Your task to perform on an android device: add a contact in the contacts app Image 0: 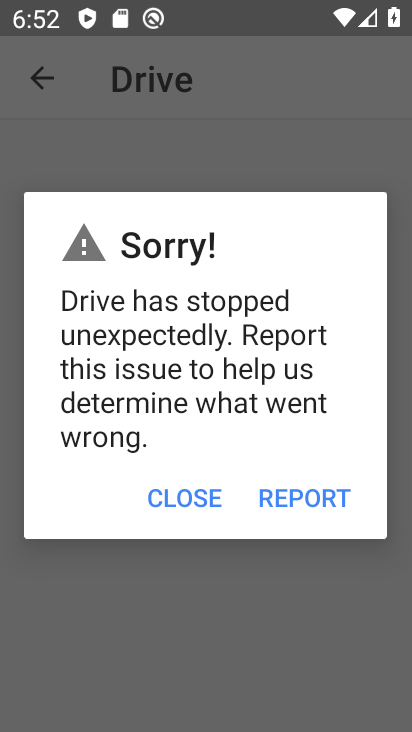
Step 0: press back button
Your task to perform on an android device: add a contact in the contacts app Image 1: 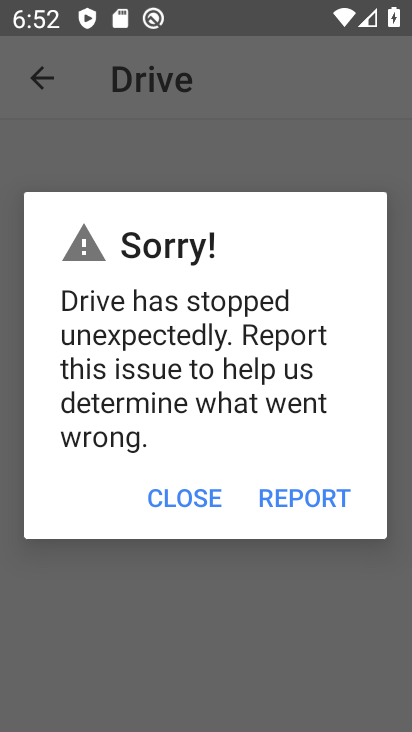
Step 1: click (190, 485)
Your task to perform on an android device: add a contact in the contacts app Image 2: 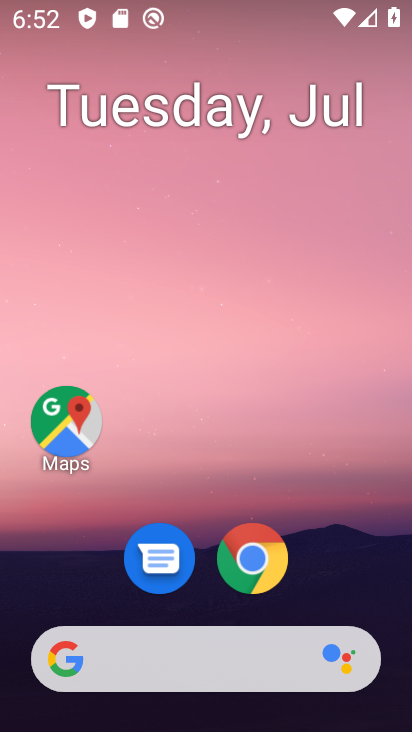
Step 2: drag from (129, 562) to (244, 2)
Your task to perform on an android device: add a contact in the contacts app Image 3: 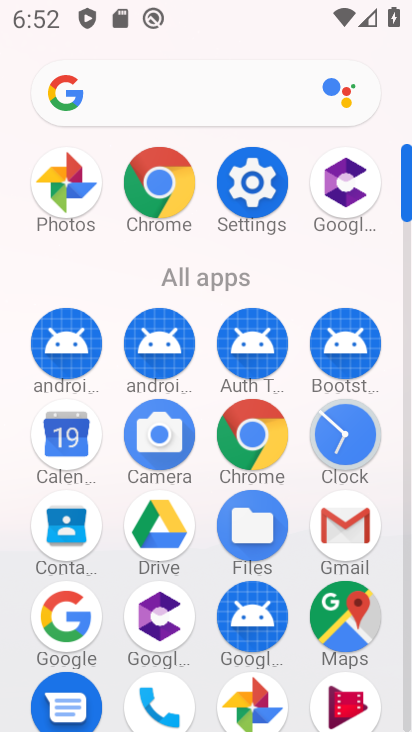
Step 3: click (77, 542)
Your task to perform on an android device: add a contact in the contacts app Image 4: 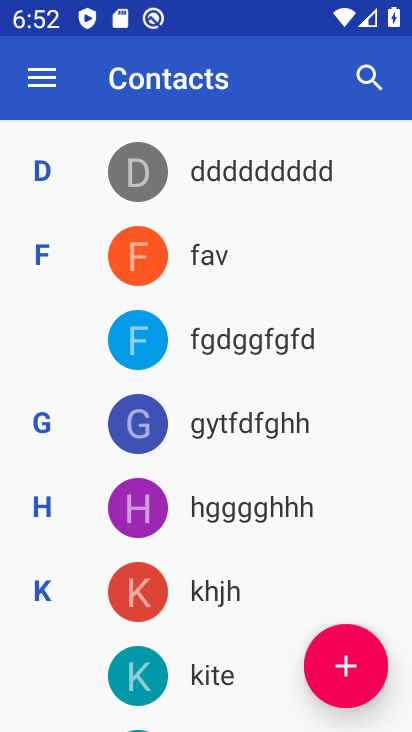
Step 4: click (360, 650)
Your task to perform on an android device: add a contact in the contacts app Image 5: 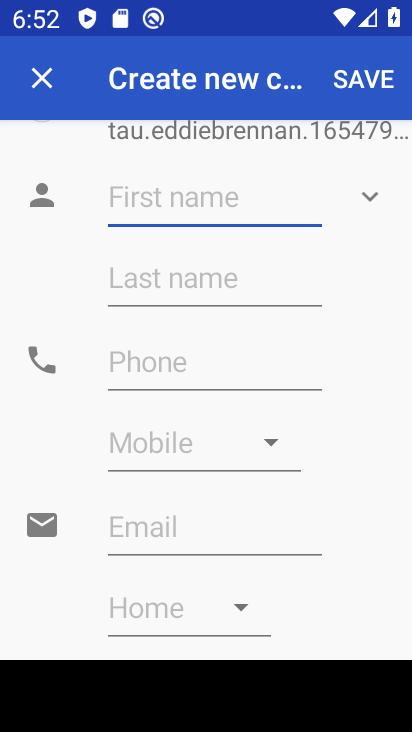
Step 5: click (136, 200)
Your task to perform on an android device: add a contact in the contacts app Image 6: 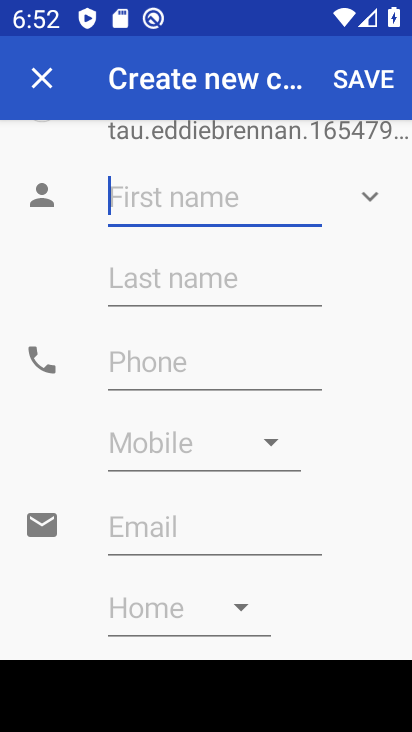
Step 6: type "hghgh"
Your task to perform on an android device: add a contact in the contacts app Image 7: 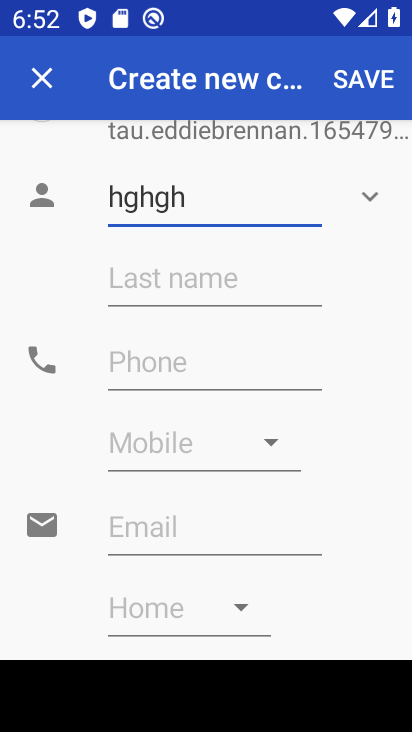
Step 7: click (151, 362)
Your task to perform on an android device: add a contact in the contacts app Image 8: 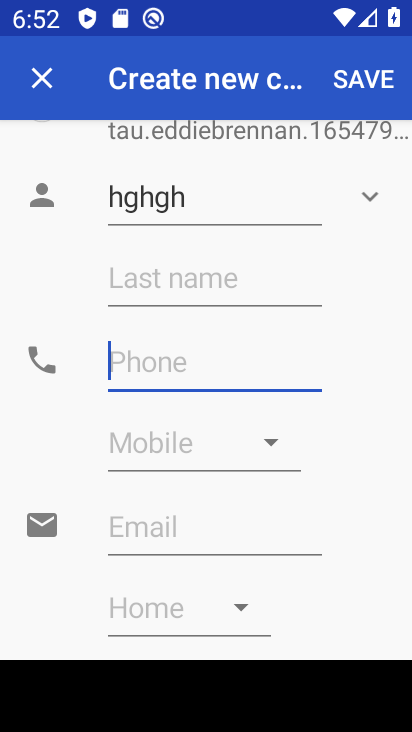
Step 8: type "676767"
Your task to perform on an android device: add a contact in the contacts app Image 9: 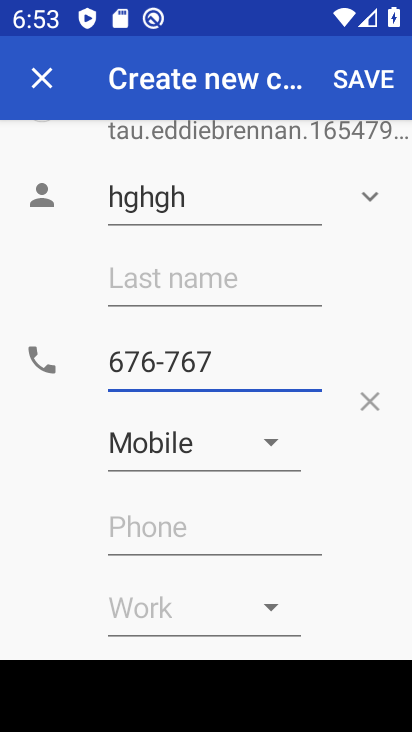
Step 9: click (366, 69)
Your task to perform on an android device: add a contact in the contacts app Image 10: 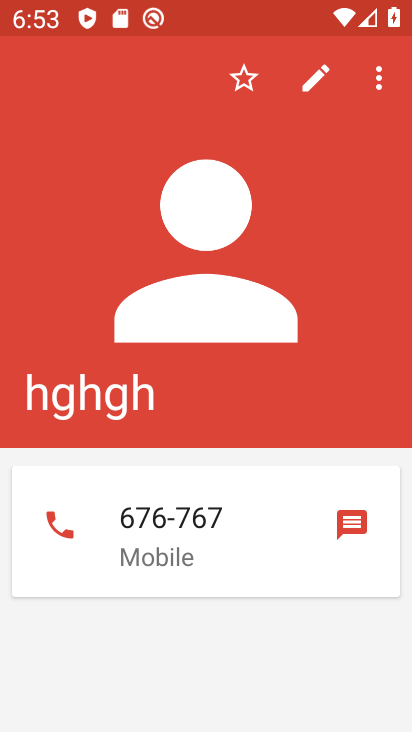
Step 10: task complete